Your task to perform on an android device: open sync settings in chrome Image 0: 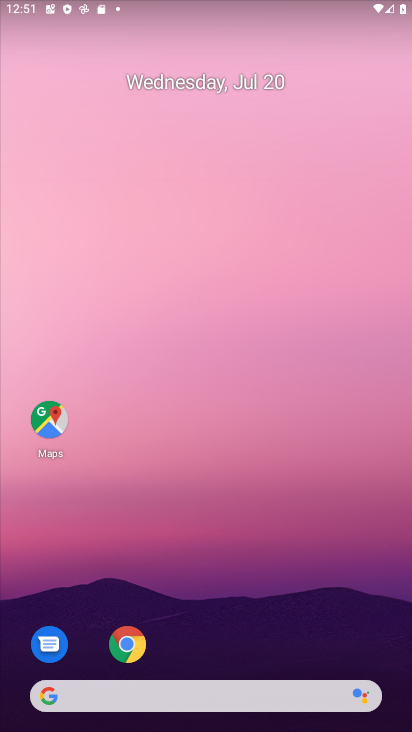
Step 0: click (129, 660)
Your task to perform on an android device: open sync settings in chrome Image 1: 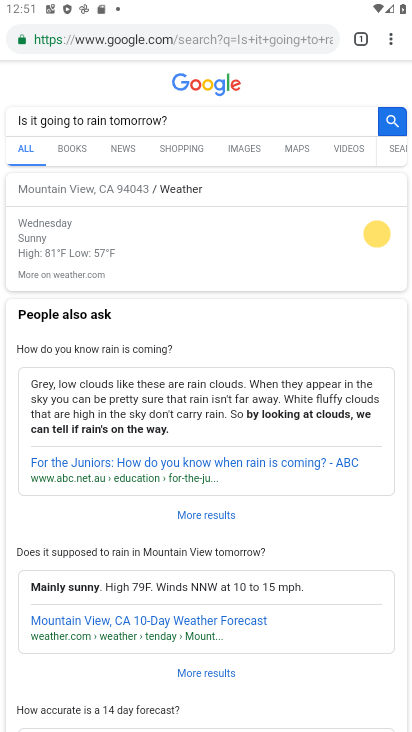
Step 1: drag from (394, 35) to (249, 429)
Your task to perform on an android device: open sync settings in chrome Image 2: 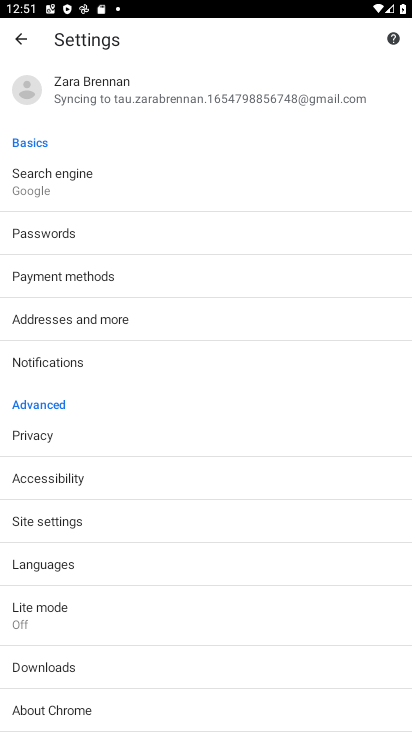
Step 2: click (62, 87)
Your task to perform on an android device: open sync settings in chrome Image 3: 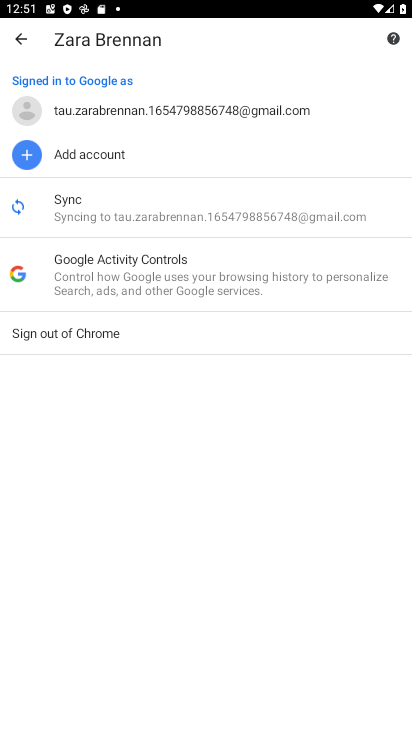
Step 3: click (47, 218)
Your task to perform on an android device: open sync settings in chrome Image 4: 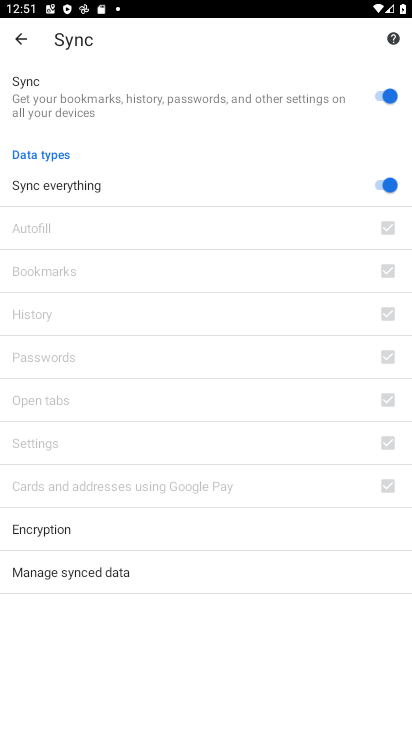
Step 4: task complete